Your task to perform on an android device: turn pop-ups off in chrome Image 0: 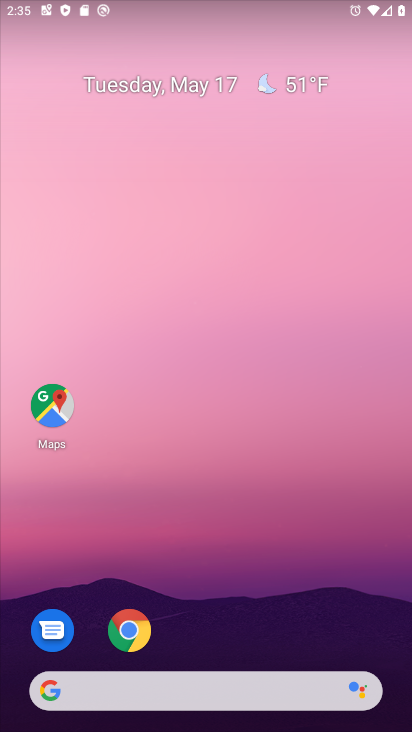
Step 0: click (131, 626)
Your task to perform on an android device: turn pop-ups off in chrome Image 1: 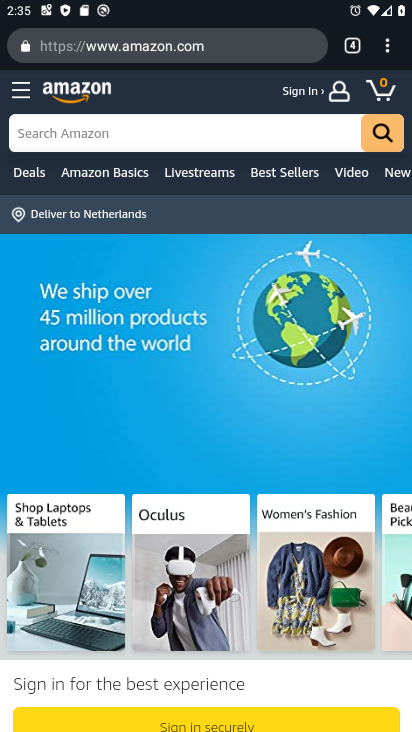
Step 1: drag from (386, 40) to (233, 549)
Your task to perform on an android device: turn pop-ups off in chrome Image 2: 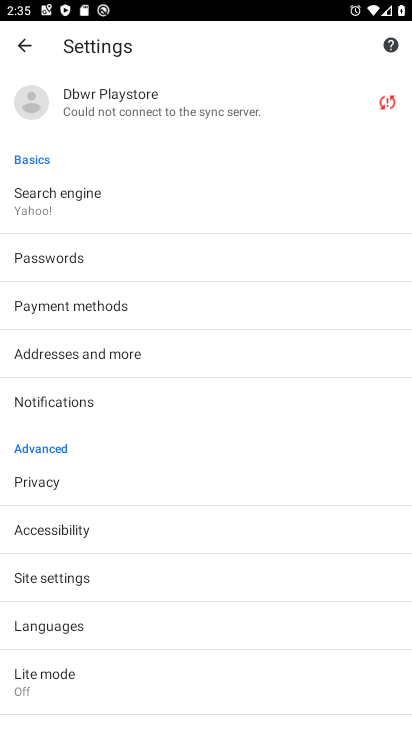
Step 2: click (58, 581)
Your task to perform on an android device: turn pop-ups off in chrome Image 3: 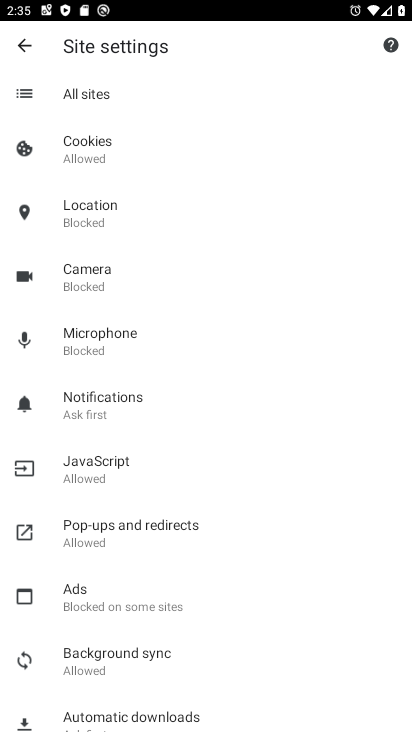
Step 3: click (121, 524)
Your task to perform on an android device: turn pop-ups off in chrome Image 4: 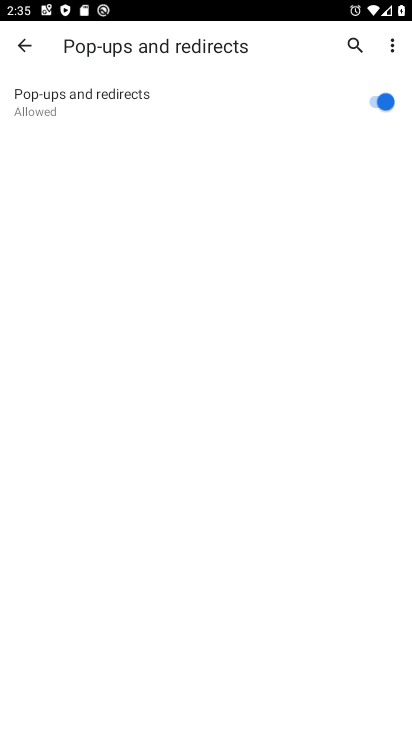
Step 4: click (376, 99)
Your task to perform on an android device: turn pop-ups off in chrome Image 5: 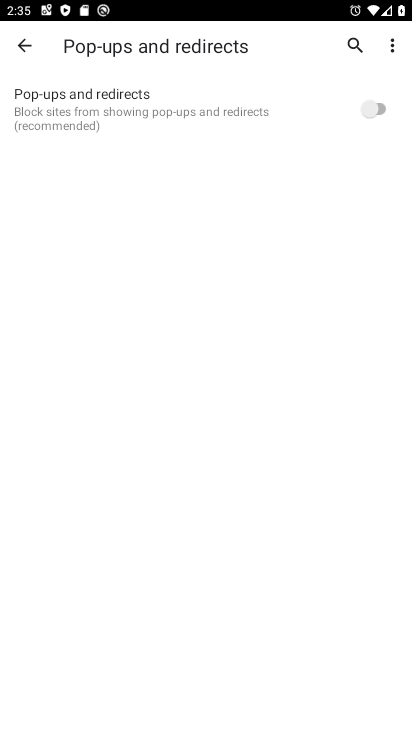
Step 5: task complete